Your task to perform on an android device: Open the map Image 0: 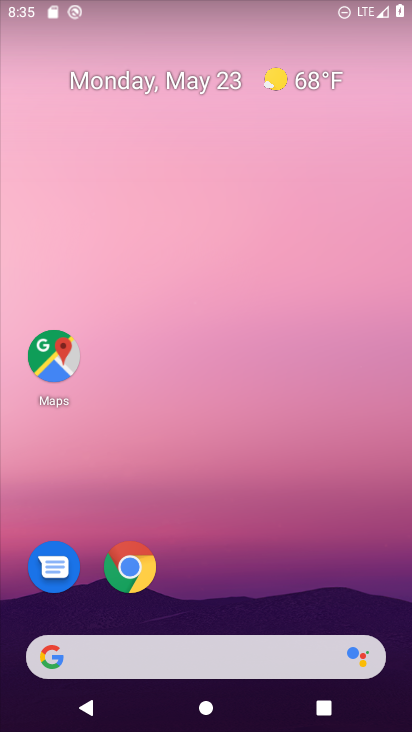
Step 0: drag from (209, 588) to (399, 62)
Your task to perform on an android device: Open the map Image 1: 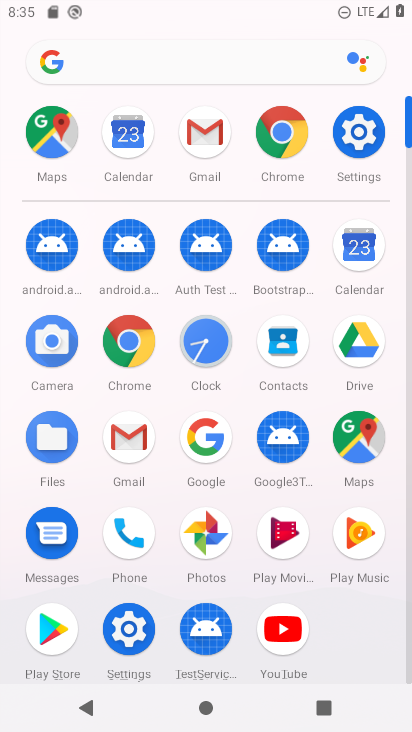
Step 1: click (363, 434)
Your task to perform on an android device: Open the map Image 2: 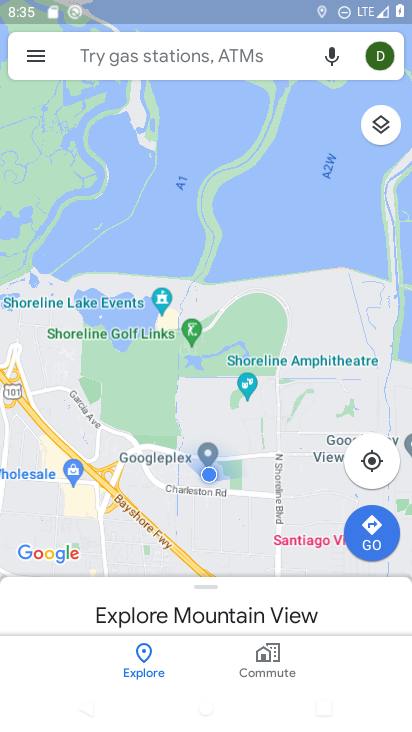
Step 2: task complete